Your task to perform on an android device: What's the weather going to be tomorrow? Image 0: 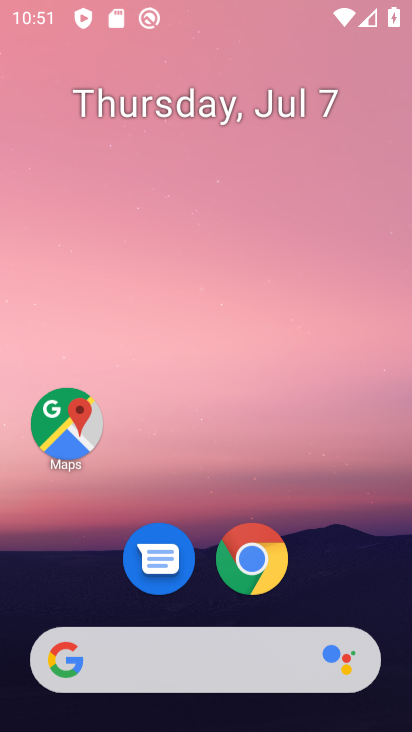
Step 0: press home button
Your task to perform on an android device: What's the weather going to be tomorrow? Image 1: 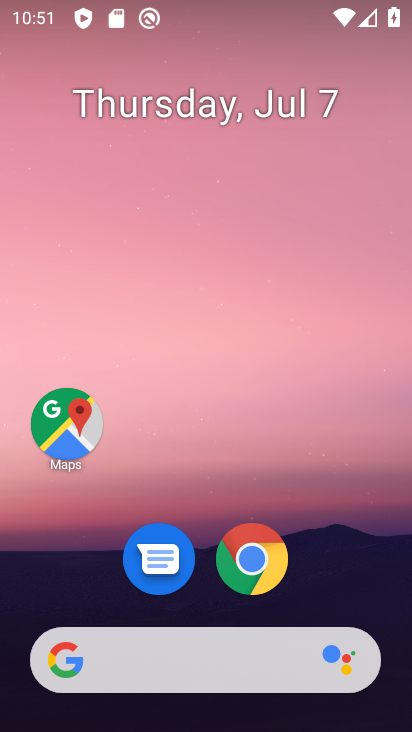
Step 1: drag from (353, 555) to (347, 194)
Your task to perform on an android device: What's the weather going to be tomorrow? Image 2: 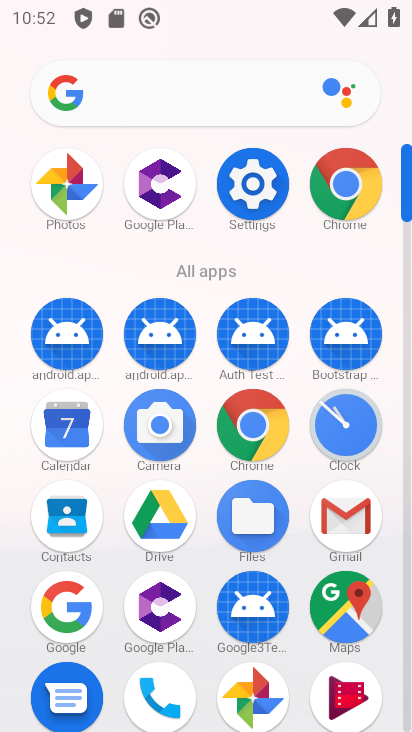
Step 2: click (204, 108)
Your task to perform on an android device: What's the weather going to be tomorrow? Image 3: 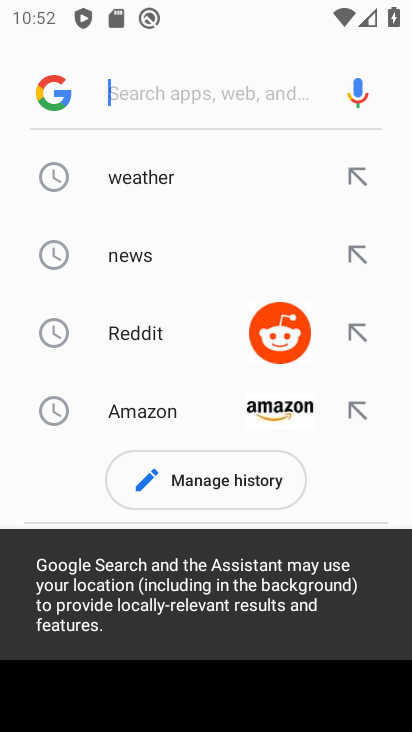
Step 3: click (165, 174)
Your task to perform on an android device: What's the weather going to be tomorrow? Image 4: 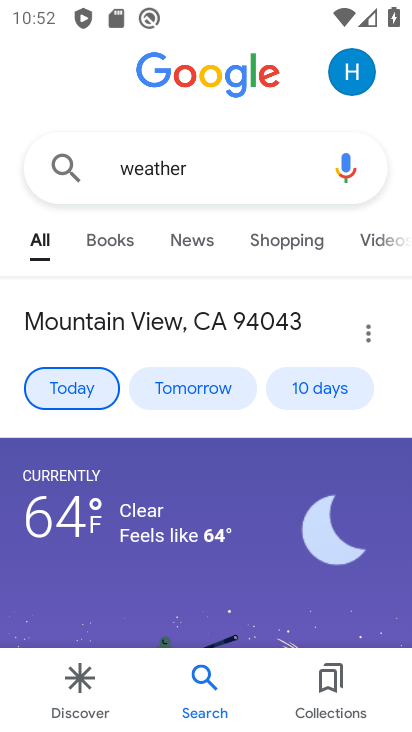
Step 4: click (223, 394)
Your task to perform on an android device: What's the weather going to be tomorrow? Image 5: 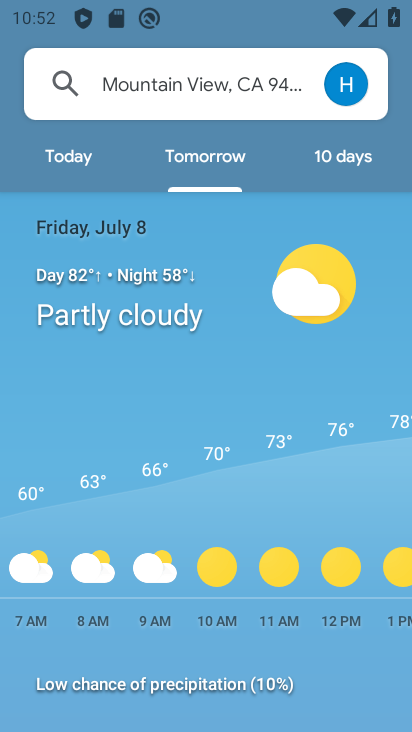
Step 5: task complete